Your task to perform on an android device: Open accessibility settings Image 0: 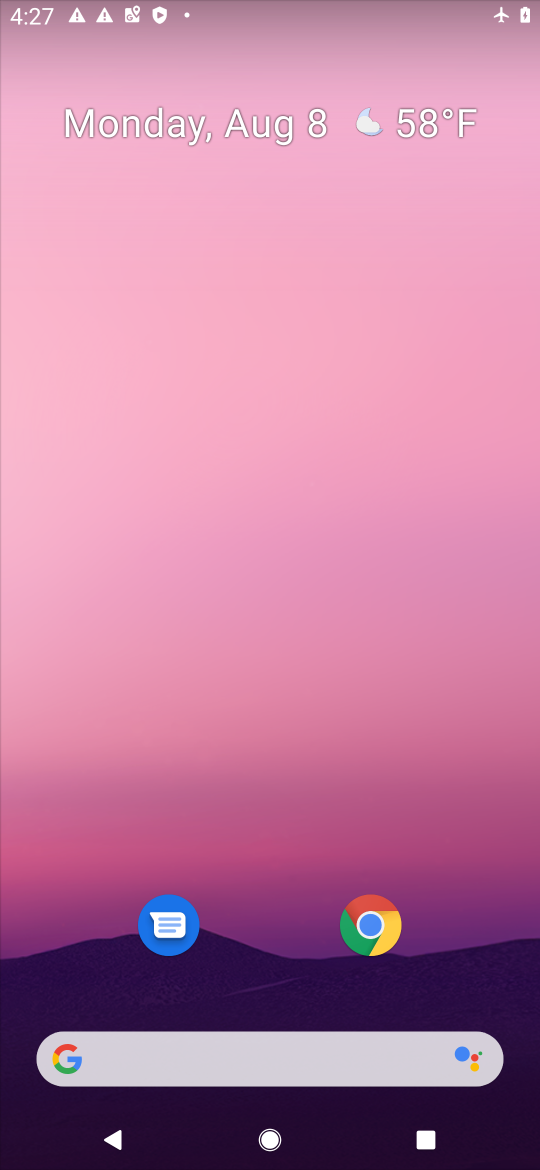
Step 0: drag from (273, 1007) to (337, 23)
Your task to perform on an android device: Open accessibility settings Image 1: 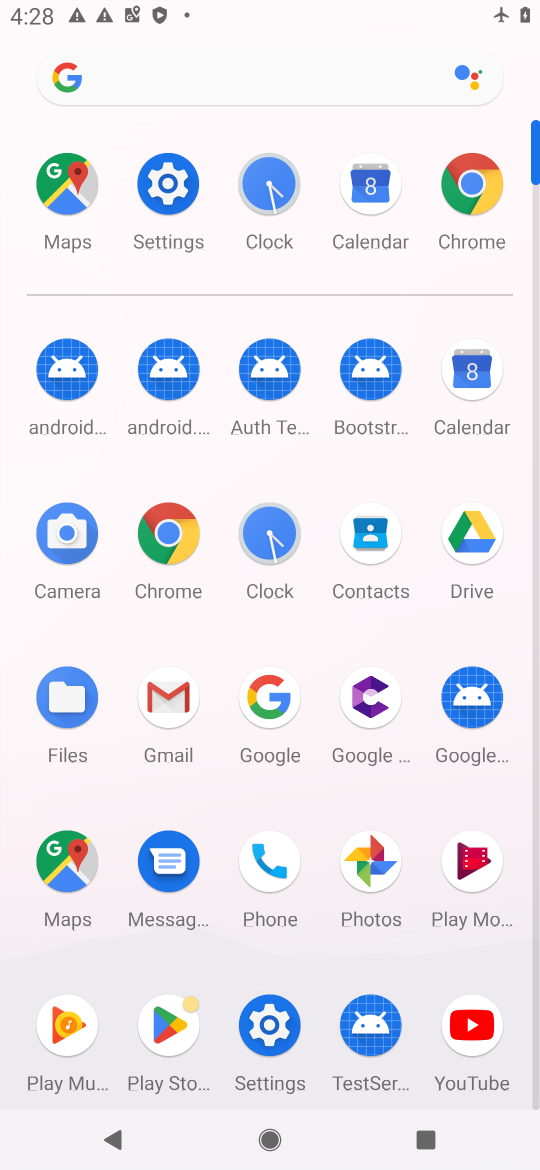
Step 1: click (168, 187)
Your task to perform on an android device: Open accessibility settings Image 2: 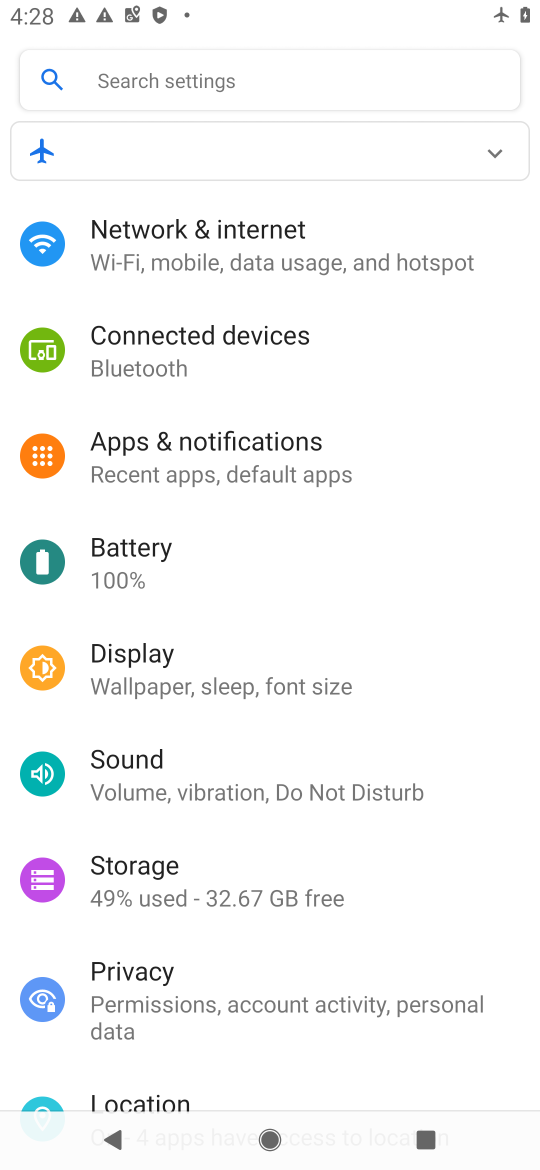
Step 2: drag from (113, 1017) to (100, 416)
Your task to perform on an android device: Open accessibility settings Image 3: 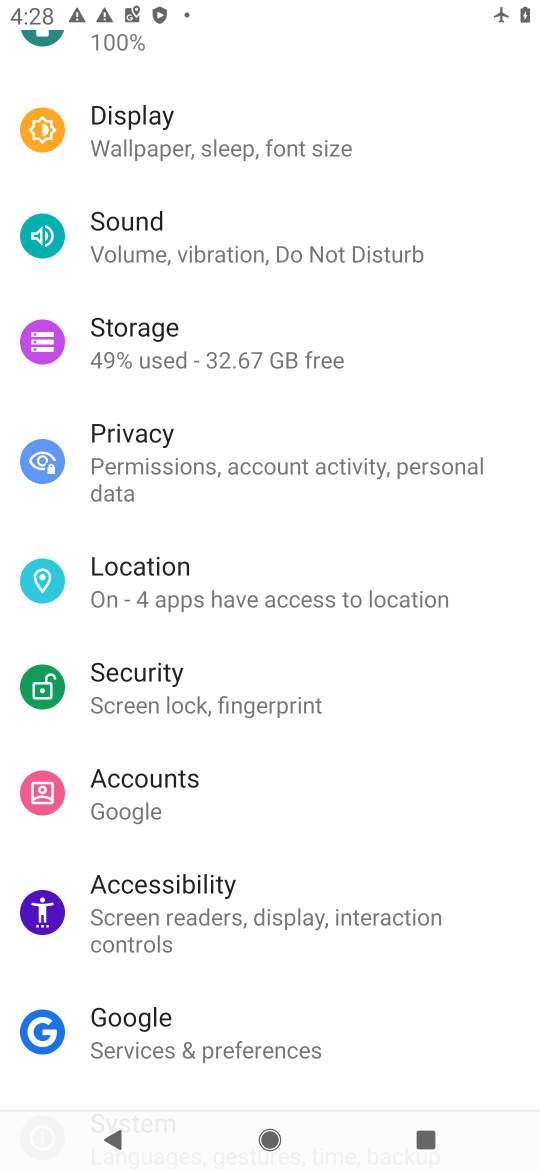
Step 3: click (189, 906)
Your task to perform on an android device: Open accessibility settings Image 4: 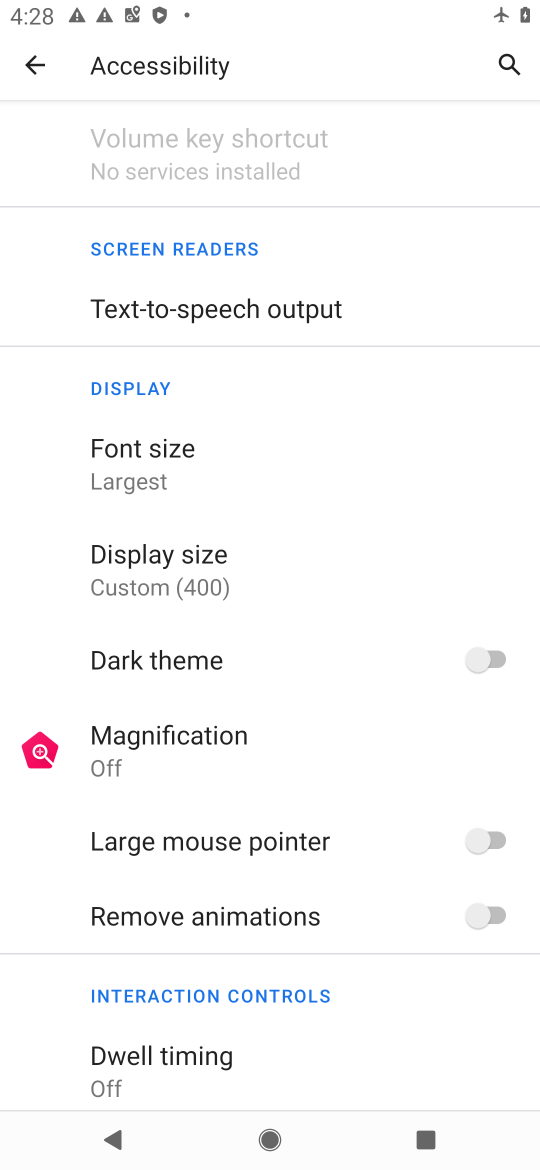
Step 4: task complete